Your task to perform on an android device: Is it going to rain this weekend? Image 0: 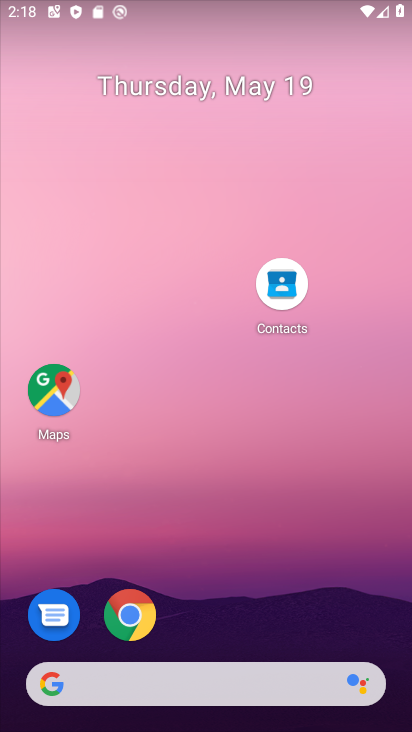
Step 0: drag from (180, 287) to (175, 177)
Your task to perform on an android device: Is it going to rain this weekend? Image 1: 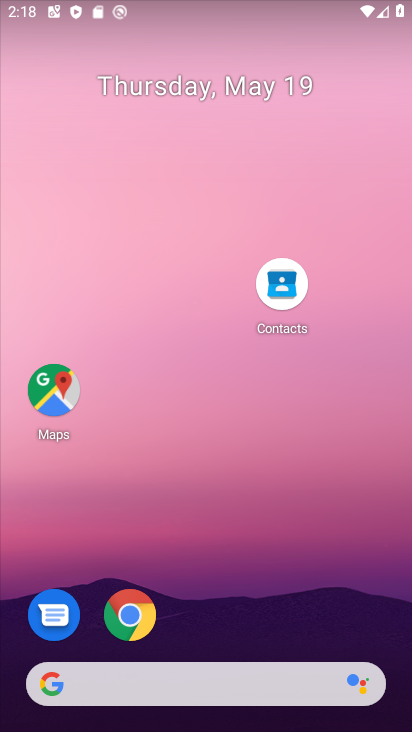
Step 1: drag from (202, 651) to (190, 199)
Your task to perform on an android device: Is it going to rain this weekend? Image 2: 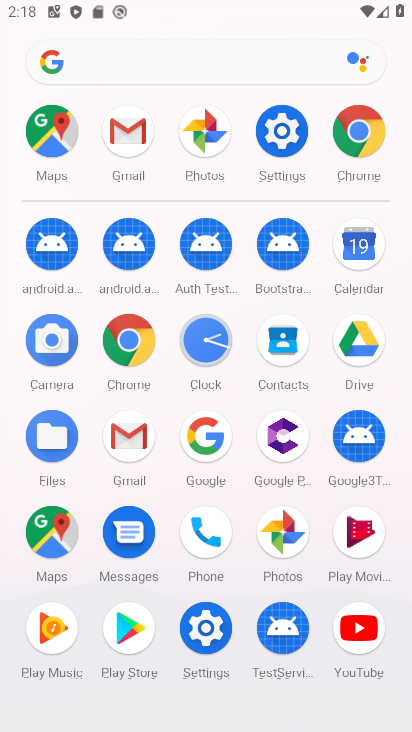
Step 2: click (221, 431)
Your task to perform on an android device: Is it going to rain this weekend? Image 3: 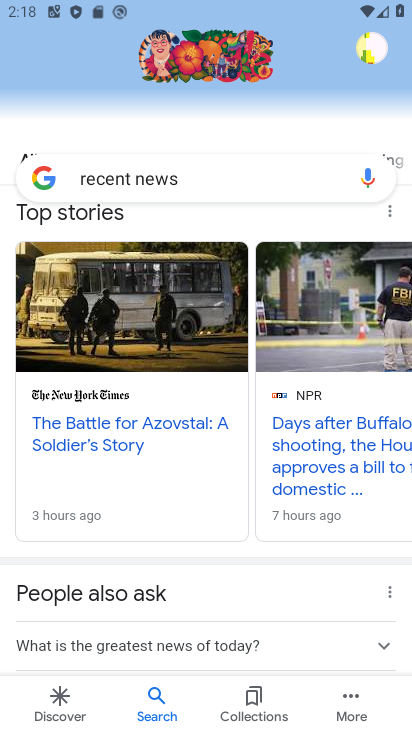
Step 3: click (252, 184)
Your task to perform on an android device: Is it going to rain this weekend? Image 4: 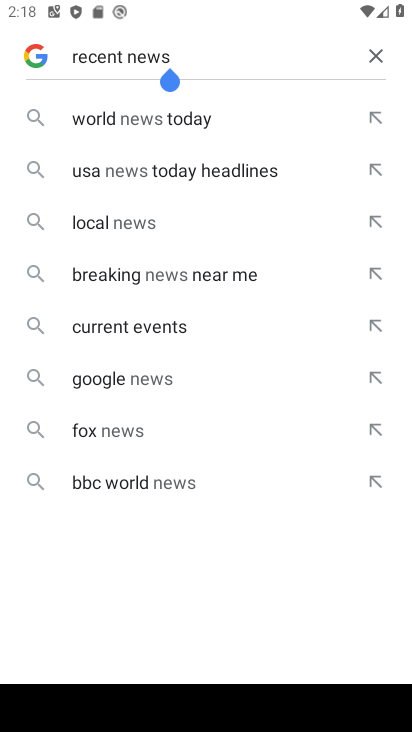
Step 4: click (375, 54)
Your task to perform on an android device: Is it going to rain this weekend? Image 5: 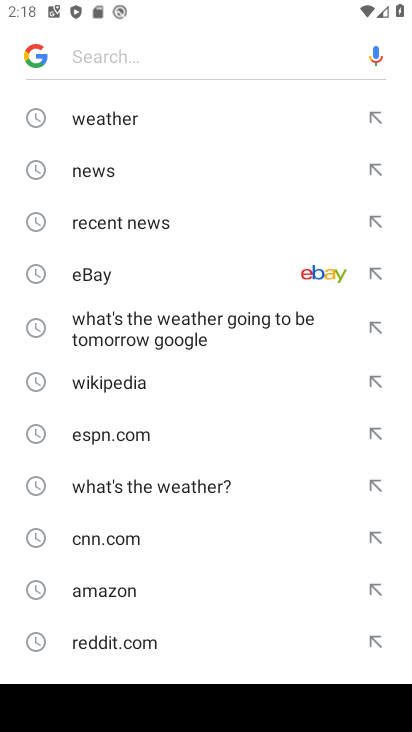
Step 5: click (222, 112)
Your task to perform on an android device: Is it going to rain this weekend? Image 6: 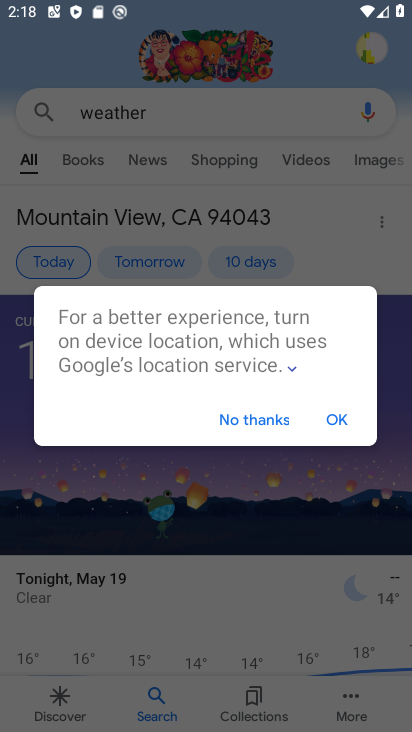
Step 6: click (326, 420)
Your task to perform on an android device: Is it going to rain this weekend? Image 7: 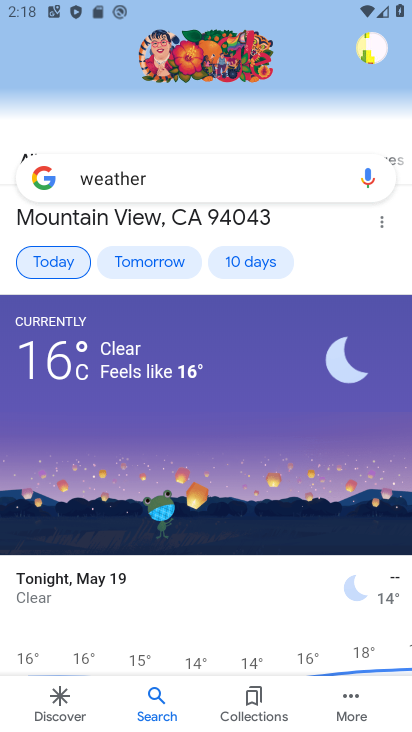
Step 7: click (257, 265)
Your task to perform on an android device: Is it going to rain this weekend? Image 8: 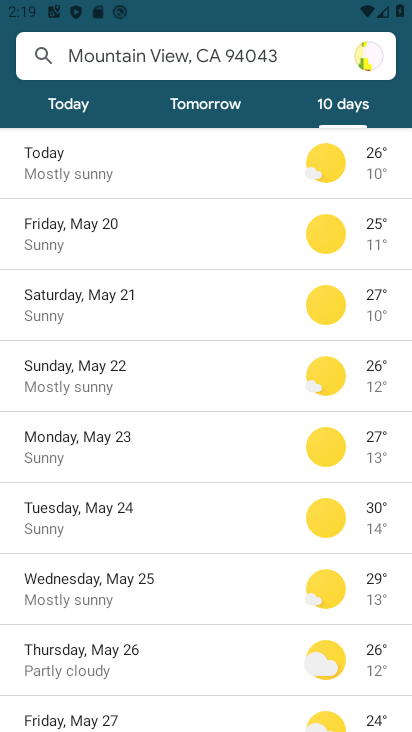
Step 8: task complete